Your task to perform on an android device: open wifi settings Image 0: 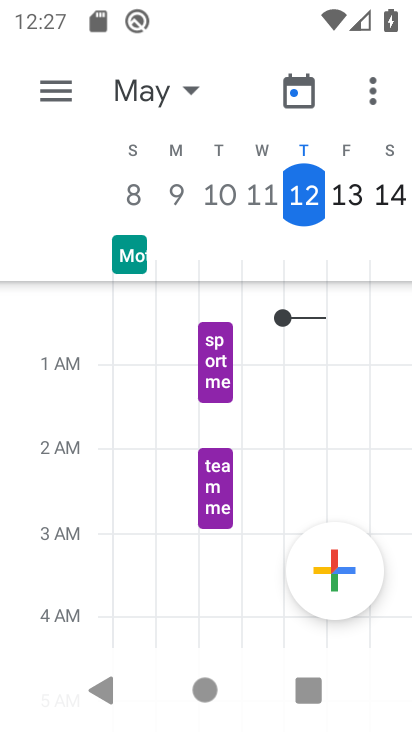
Step 0: press home button
Your task to perform on an android device: open wifi settings Image 1: 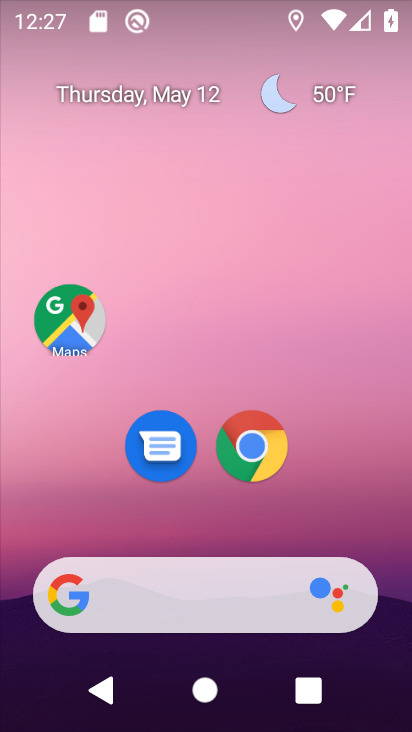
Step 1: drag from (332, 532) to (403, 2)
Your task to perform on an android device: open wifi settings Image 2: 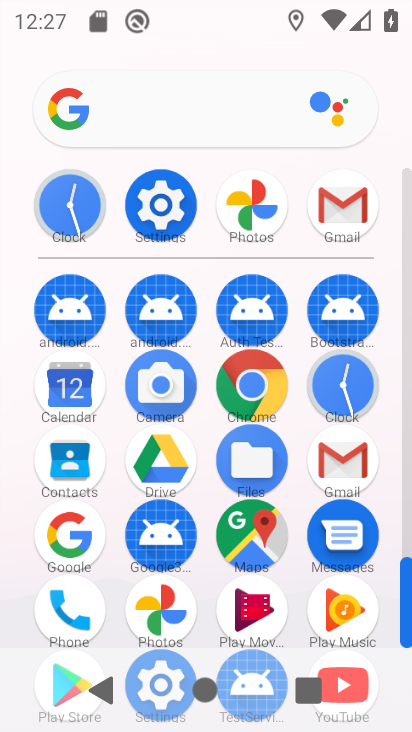
Step 2: click (145, 195)
Your task to perform on an android device: open wifi settings Image 3: 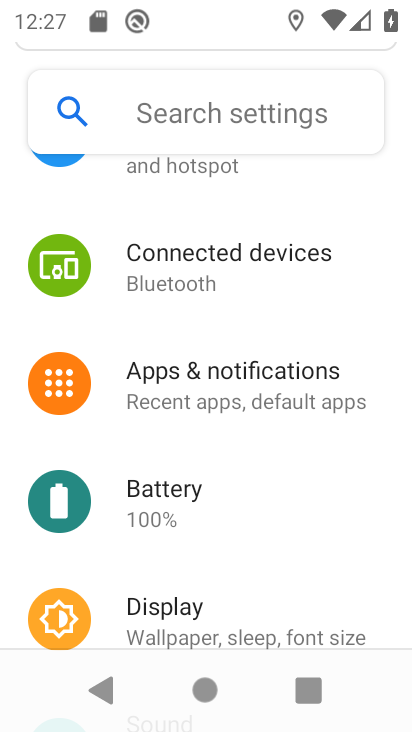
Step 3: drag from (207, 233) to (204, 624)
Your task to perform on an android device: open wifi settings Image 4: 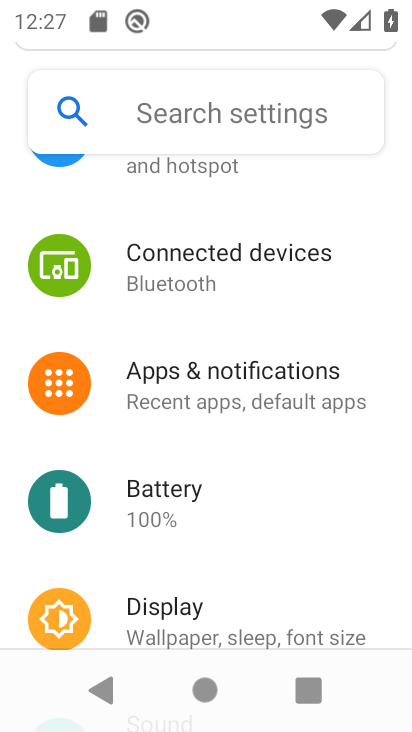
Step 4: drag from (217, 342) to (254, 615)
Your task to perform on an android device: open wifi settings Image 5: 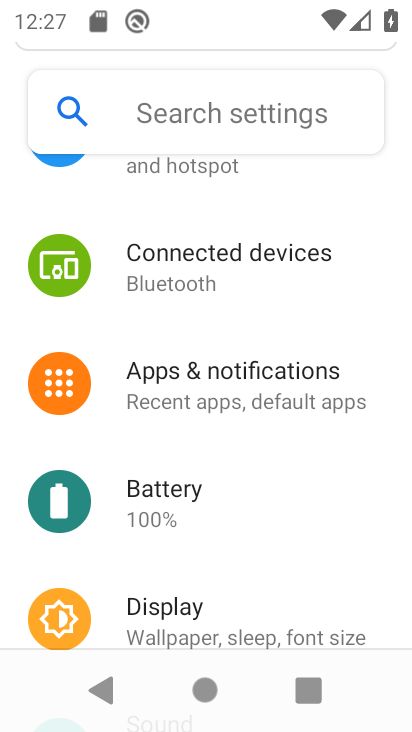
Step 5: click (204, 171)
Your task to perform on an android device: open wifi settings Image 6: 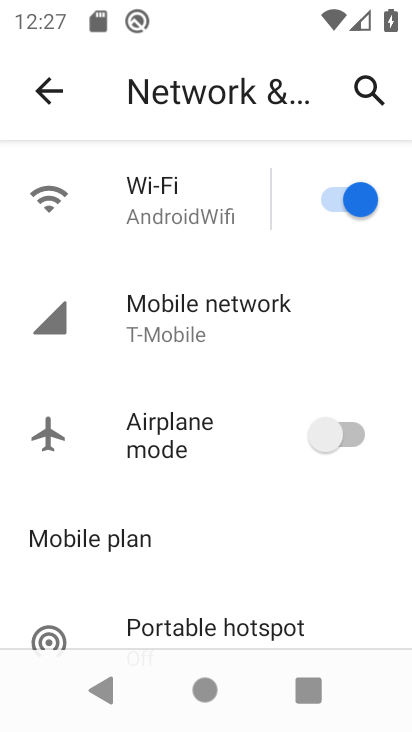
Step 6: click (211, 222)
Your task to perform on an android device: open wifi settings Image 7: 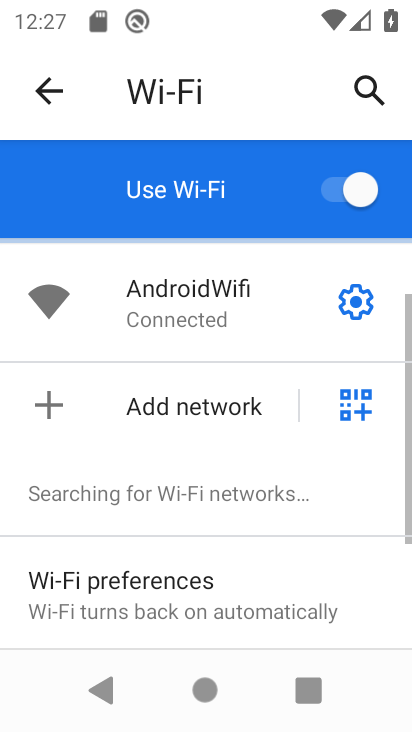
Step 7: task complete